Your task to perform on an android device: Open calendar and show me the fourth week of next month Image 0: 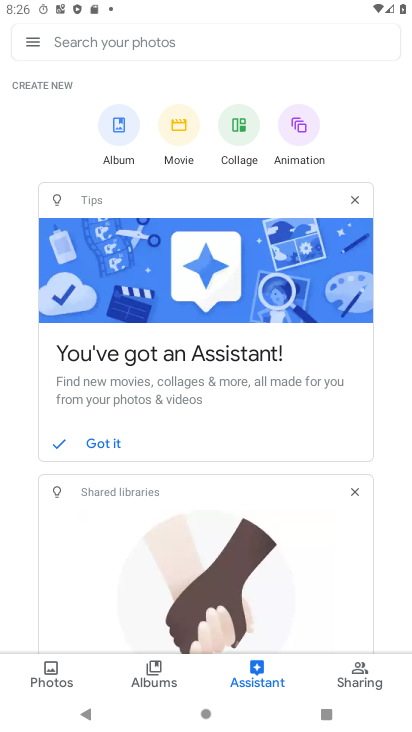
Step 0: press home button
Your task to perform on an android device: Open calendar and show me the fourth week of next month Image 1: 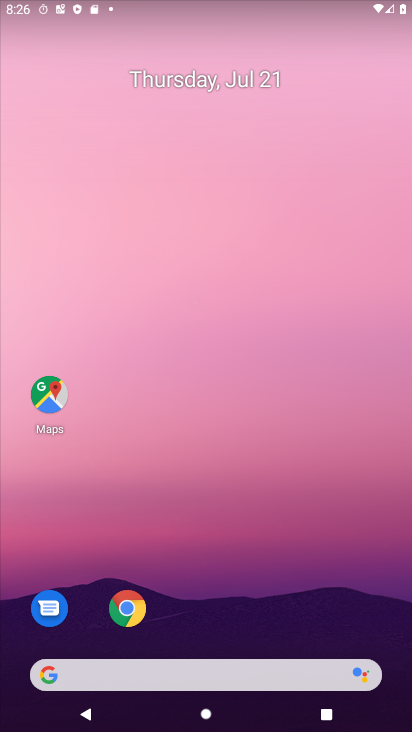
Step 1: drag from (223, 637) to (214, 207)
Your task to perform on an android device: Open calendar and show me the fourth week of next month Image 2: 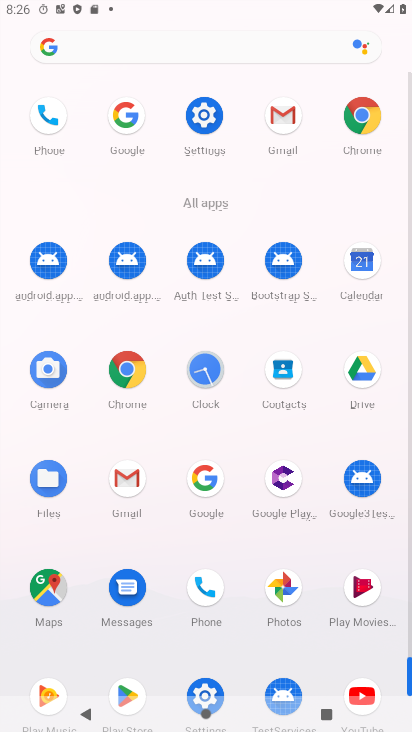
Step 2: click (358, 281)
Your task to perform on an android device: Open calendar and show me the fourth week of next month Image 3: 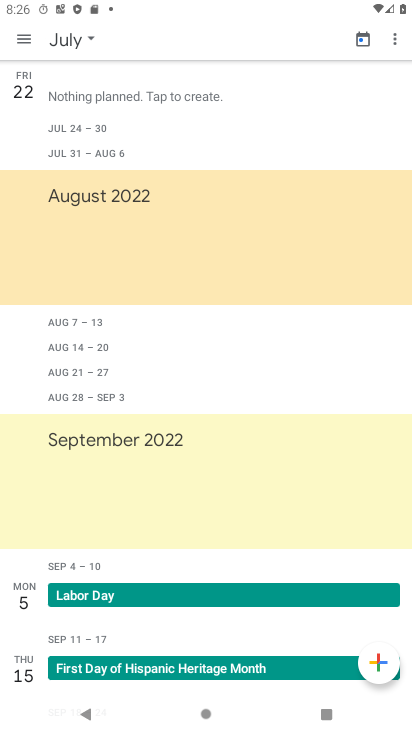
Step 3: click (84, 36)
Your task to perform on an android device: Open calendar and show me the fourth week of next month Image 4: 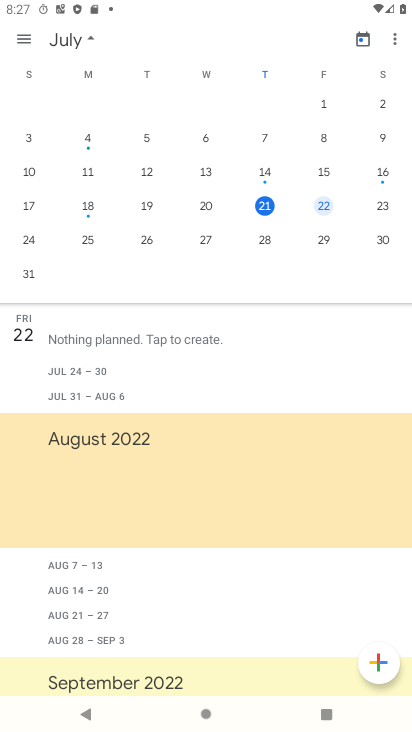
Step 4: drag from (365, 255) to (0, 230)
Your task to perform on an android device: Open calendar and show me the fourth week of next month Image 5: 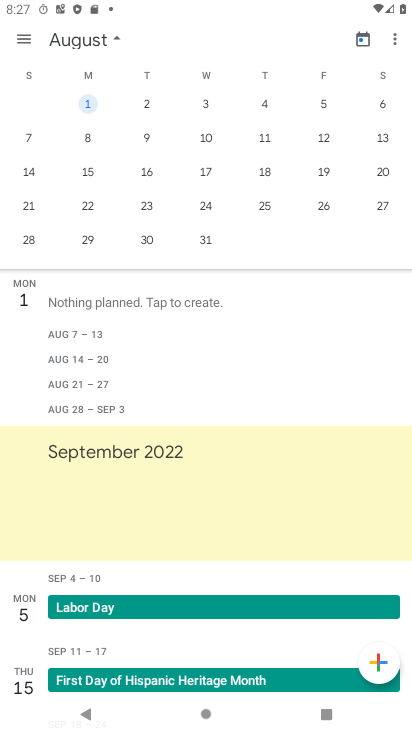
Step 5: click (81, 193)
Your task to perform on an android device: Open calendar and show me the fourth week of next month Image 6: 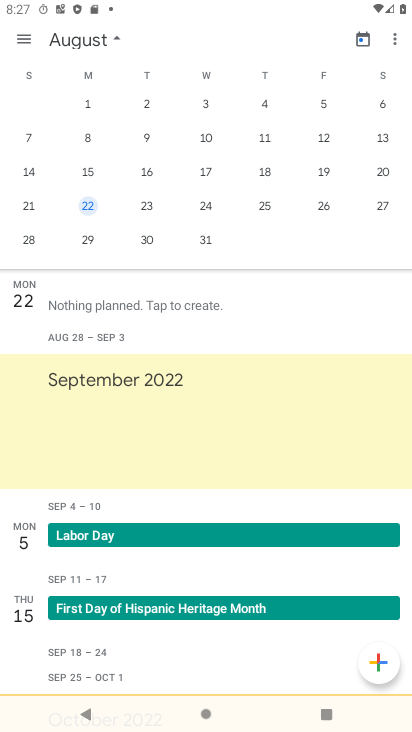
Step 6: task complete